Your task to perform on an android device: Open internet settings Image 0: 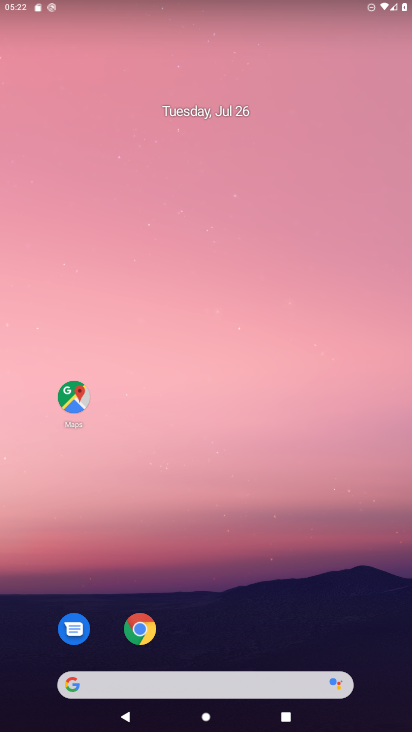
Step 0: drag from (199, 598) to (186, 93)
Your task to perform on an android device: Open internet settings Image 1: 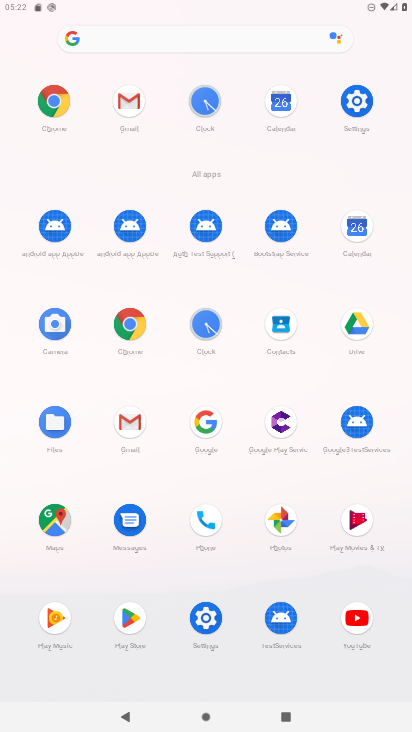
Step 1: click (356, 103)
Your task to perform on an android device: Open internet settings Image 2: 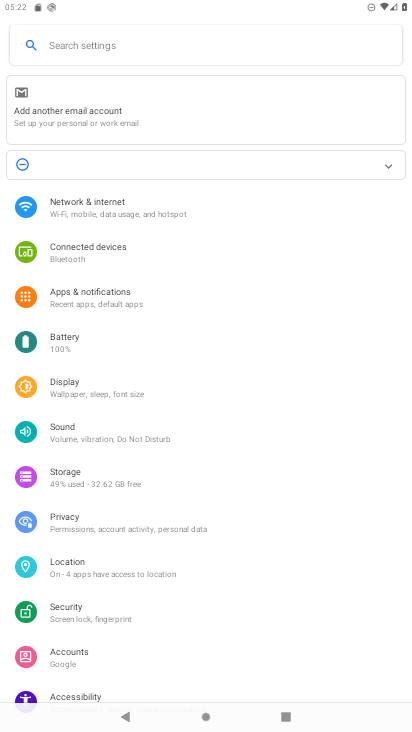
Step 2: click (125, 219)
Your task to perform on an android device: Open internet settings Image 3: 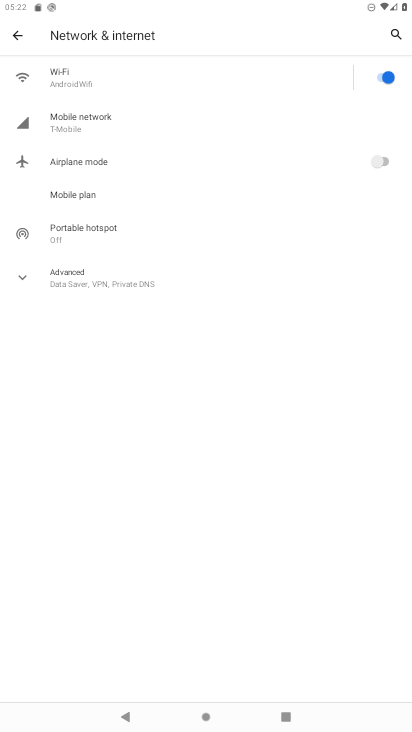
Step 3: task complete